Your task to perform on an android device: turn pop-ups off in chrome Image 0: 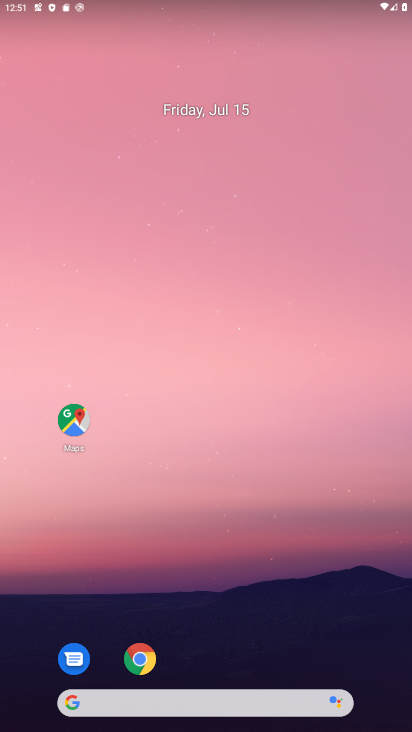
Step 0: click (147, 658)
Your task to perform on an android device: turn pop-ups off in chrome Image 1: 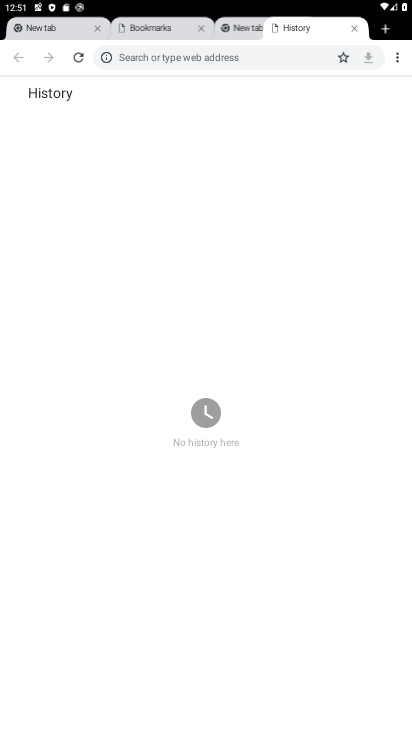
Step 1: click (394, 53)
Your task to perform on an android device: turn pop-ups off in chrome Image 2: 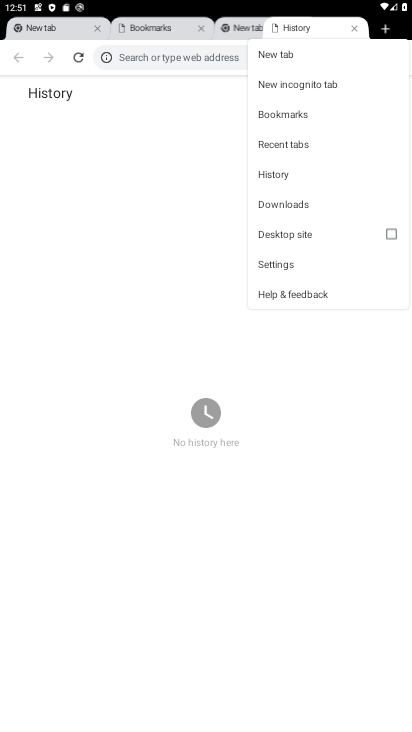
Step 2: click (298, 265)
Your task to perform on an android device: turn pop-ups off in chrome Image 3: 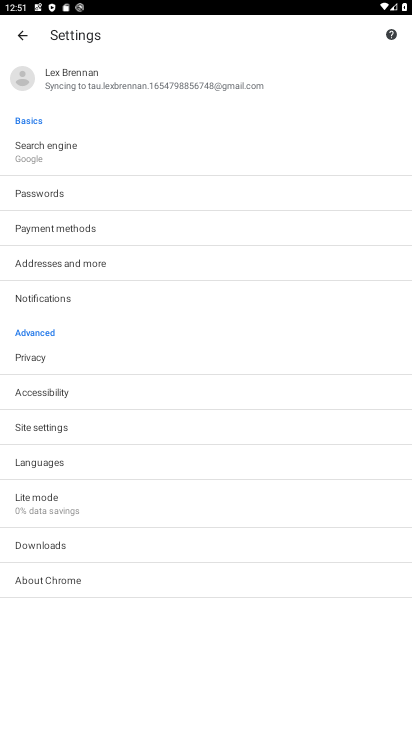
Step 3: click (36, 428)
Your task to perform on an android device: turn pop-ups off in chrome Image 4: 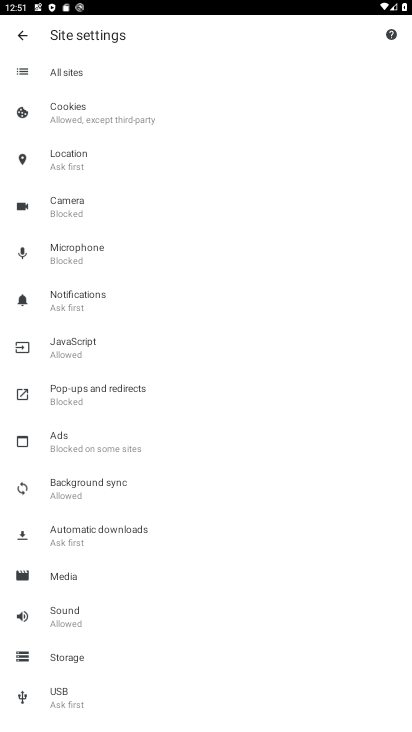
Step 4: click (94, 404)
Your task to perform on an android device: turn pop-ups off in chrome Image 5: 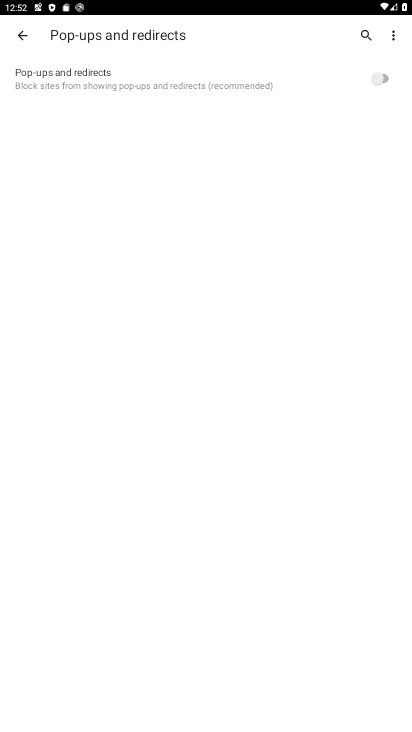
Step 5: task complete